Your task to perform on an android device: Open the web browser Image 0: 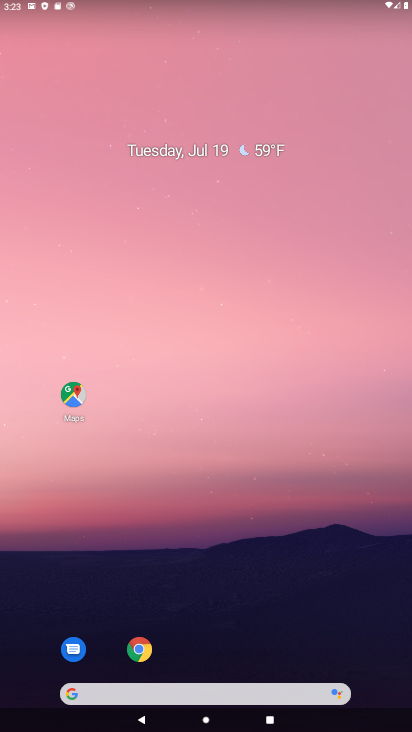
Step 0: click (139, 646)
Your task to perform on an android device: Open the web browser Image 1: 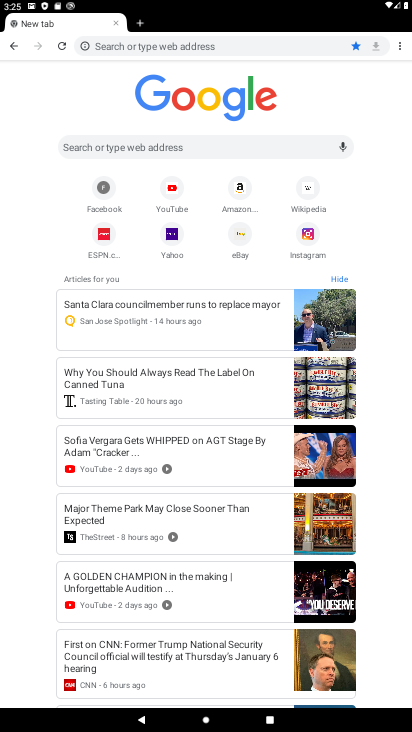
Step 1: task complete